Your task to perform on an android device: turn on showing notifications on the lock screen Image 0: 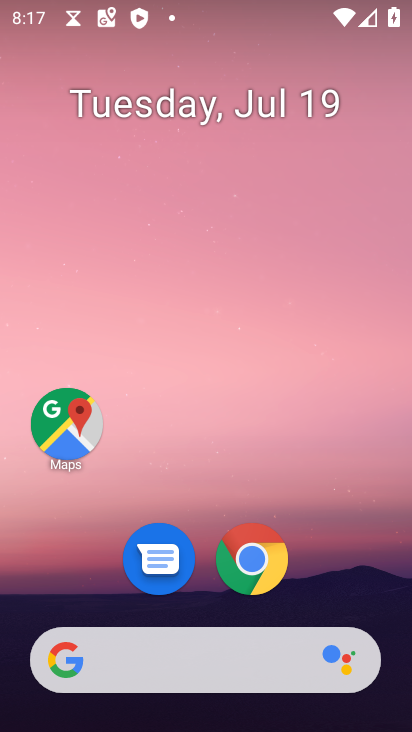
Step 0: drag from (147, 588) to (249, 0)
Your task to perform on an android device: turn on showing notifications on the lock screen Image 1: 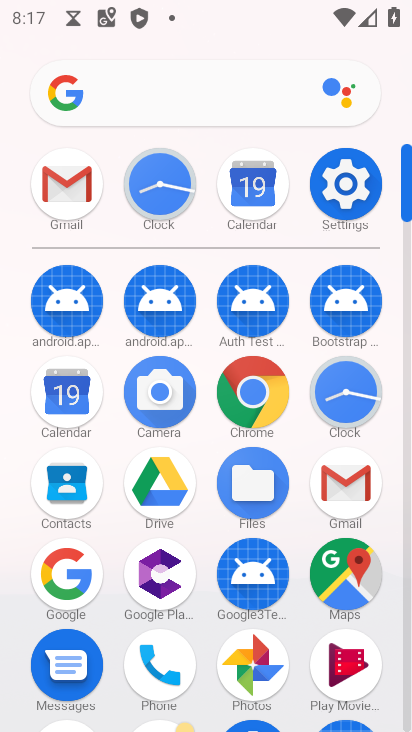
Step 1: click (328, 193)
Your task to perform on an android device: turn on showing notifications on the lock screen Image 2: 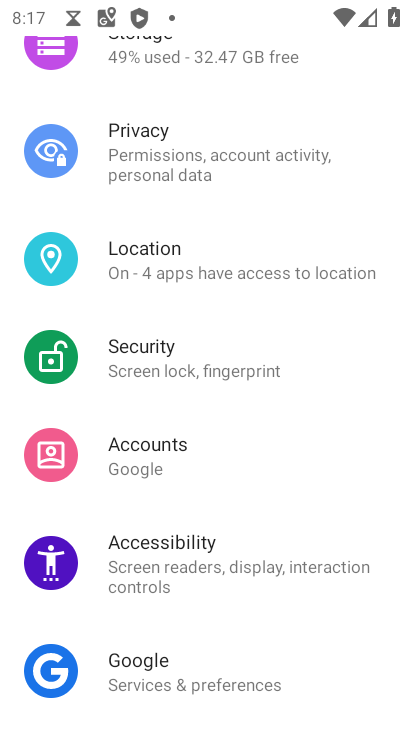
Step 2: drag from (191, 132) to (205, 731)
Your task to perform on an android device: turn on showing notifications on the lock screen Image 3: 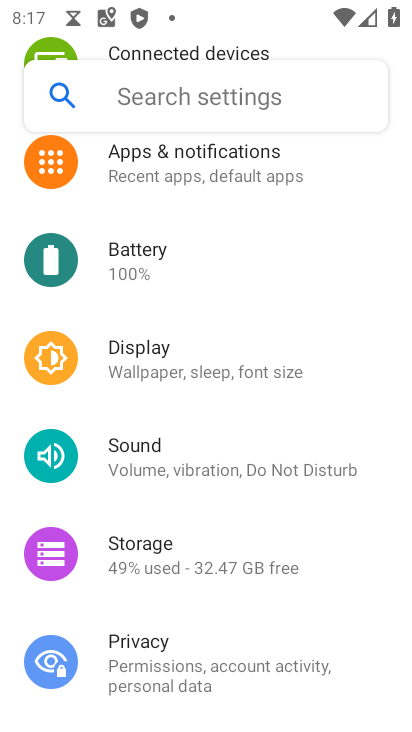
Step 3: drag from (290, 203) to (283, 651)
Your task to perform on an android device: turn on showing notifications on the lock screen Image 4: 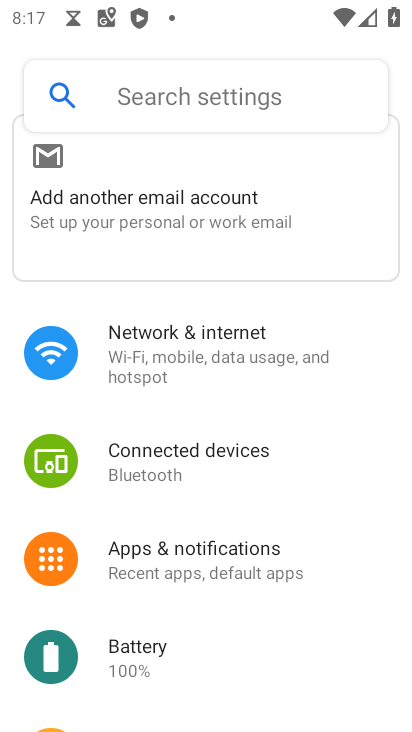
Step 4: click (209, 547)
Your task to perform on an android device: turn on showing notifications on the lock screen Image 5: 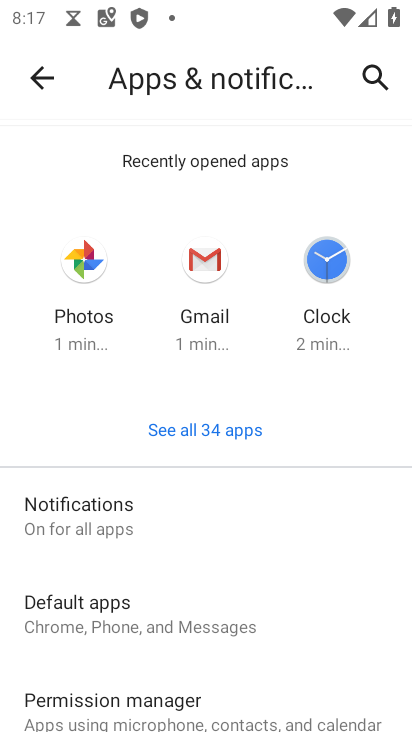
Step 5: click (110, 511)
Your task to perform on an android device: turn on showing notifications on the lock screen Image 6: 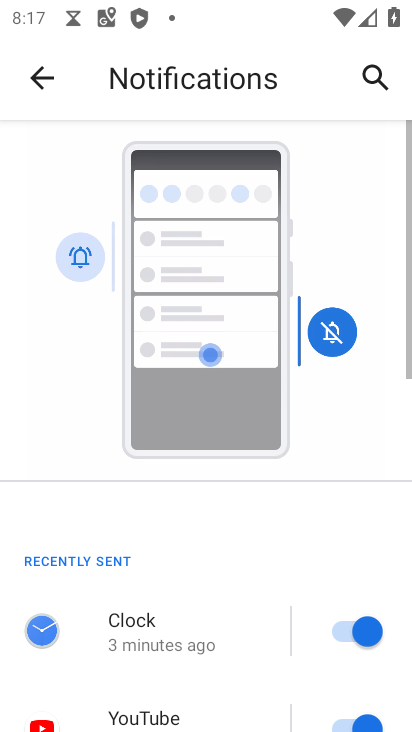
Step 6: drag from (166, 634) to (313, 82)
Your task to perform on an android device: turn on showing notifications on the lock screen Image 7: 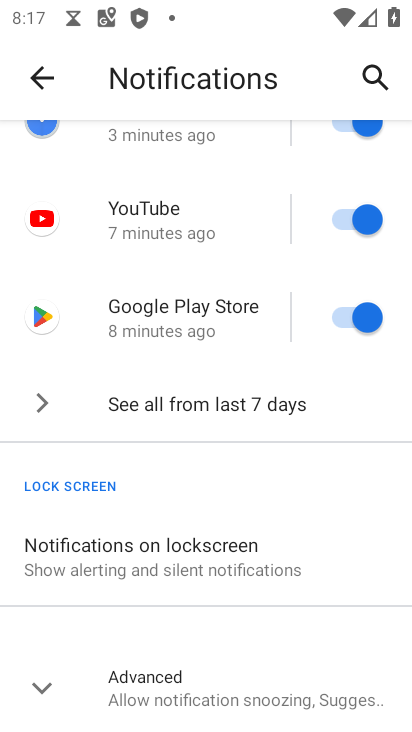
Step 7: click (177, 560)
Your task to perform on an android device: turn on showing notifications on the lock screen Image 8: 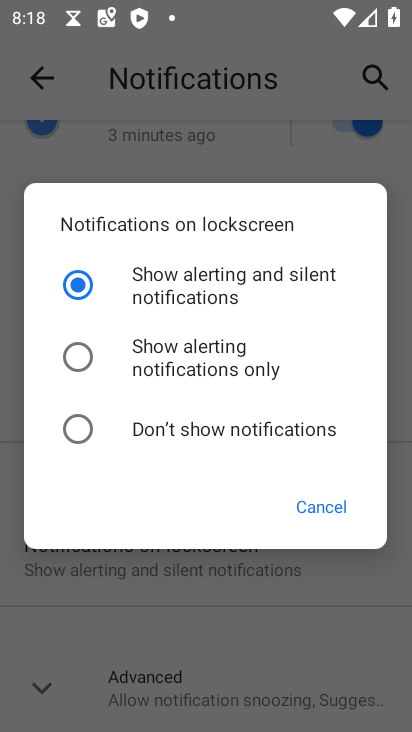
Step 8: task complete